Your task to perform on an android device: Open calendar and show me the first week of next month Image 0: 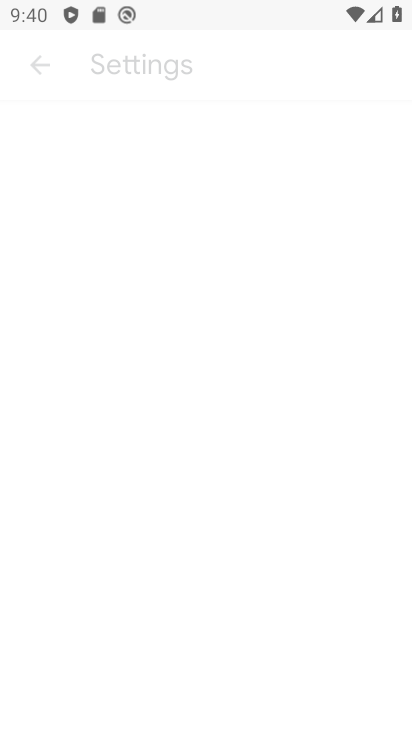
Step 0: drag from (382, 599) to (300, 160)
Your task to perform on an android device: Open calendar and show me the first week of next month Image 1: 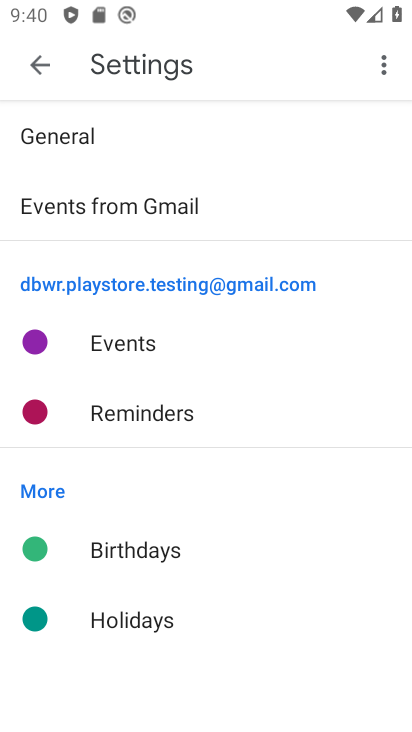
Step 1: press home button
Your task to perform on an android device: Open calendar and show me the first week of next month Image 2: 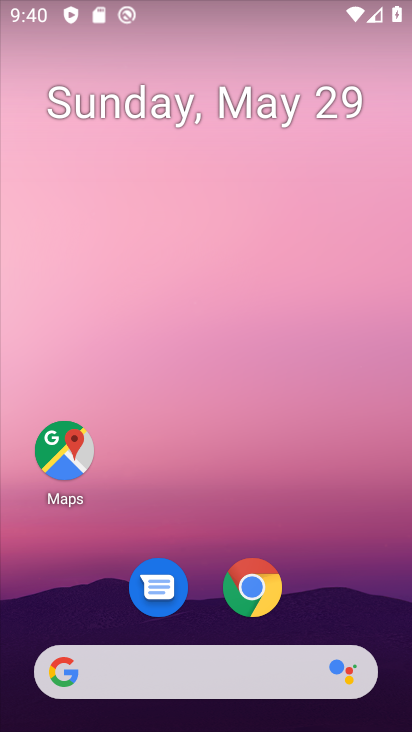
Step 2: drag from (375, 590) to (284, 16)
Your task to perform on an android device: Open calendar and show me the first week of next month Image 3: 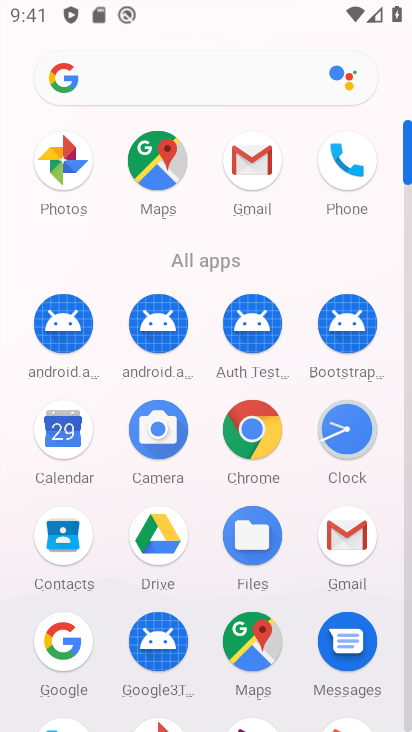
Step 3: click (411, 696)
Your task to perform on an android device: Open calendar and show me the first week of next month Image 4: 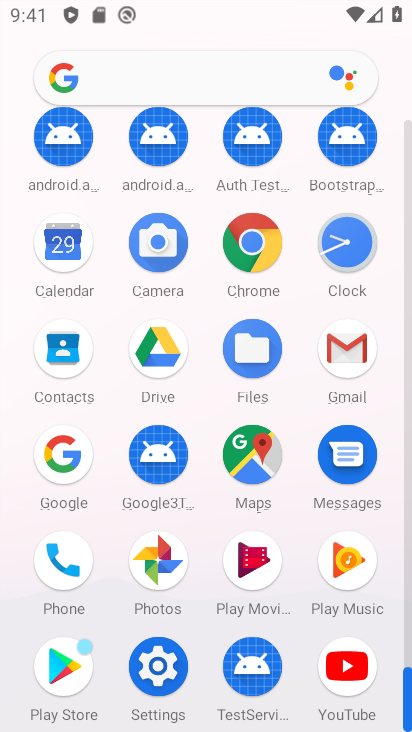
Step 4: click (67, 239)
Your task to perform on an android device: Open calendar and show me the first week of next month Image 5: 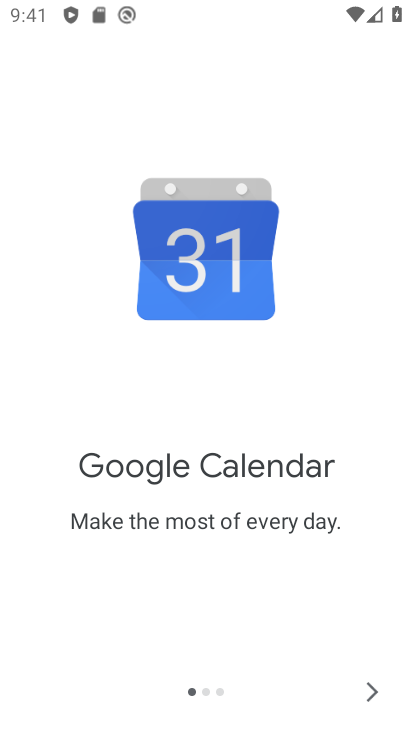
Step 5: click (381, 700)
Your task to perform on an android device: Open calendar and show me the first week of next month Image 6: 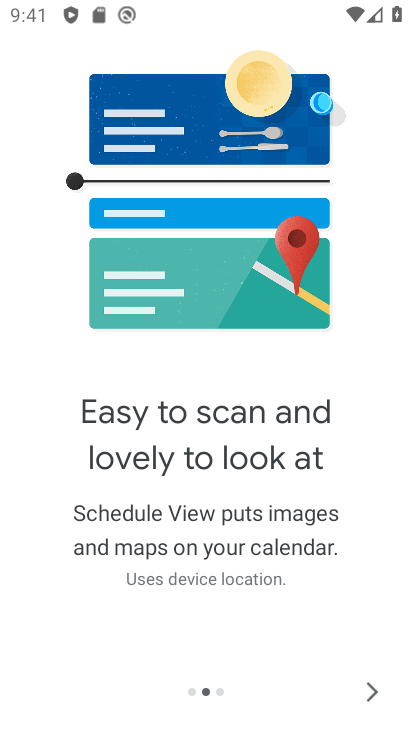
Step 6: click (381, 700)
Your task to perform on an android device: Open calendar and show me the first week of next month Image 7: 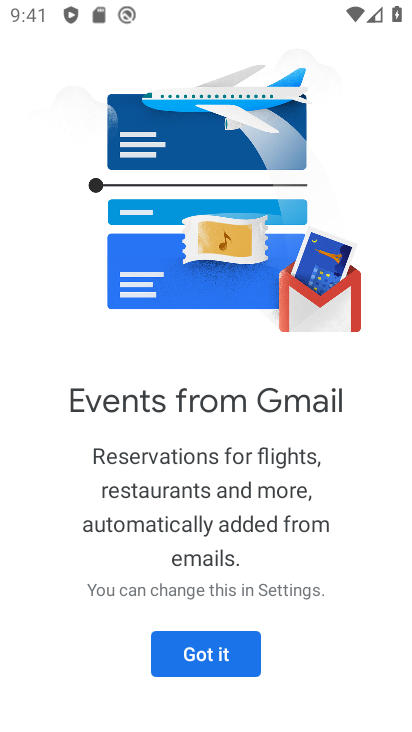
Step 7: click (241, 665)
Your task to perform on an android device: Open calendar and show me the first week of next month Image 8: 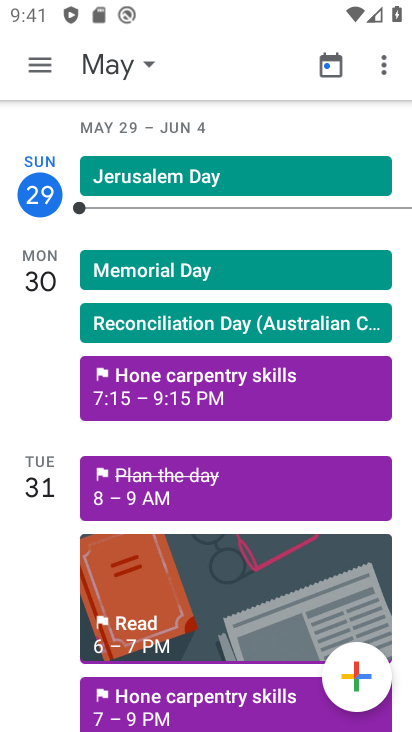
Step 8: click (116, 60)
Your task to perform on an android device: Open calendar and show me the first week of next month Image 9: 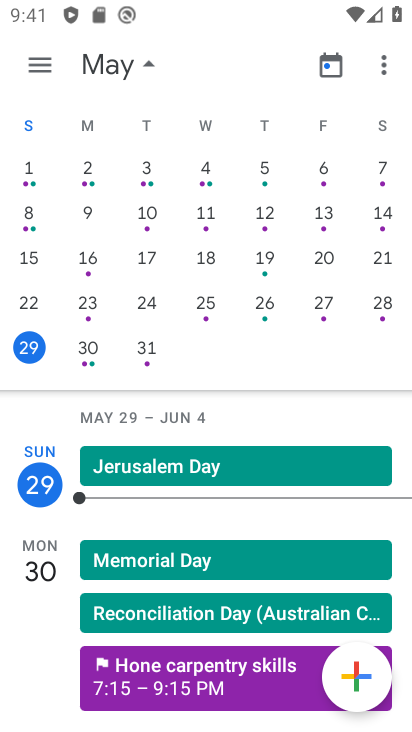
Step 9: drag from (392, 245) to (36, 255)
Your task to perform on an android device: Open calendar and show me the first week of next month Image 10: 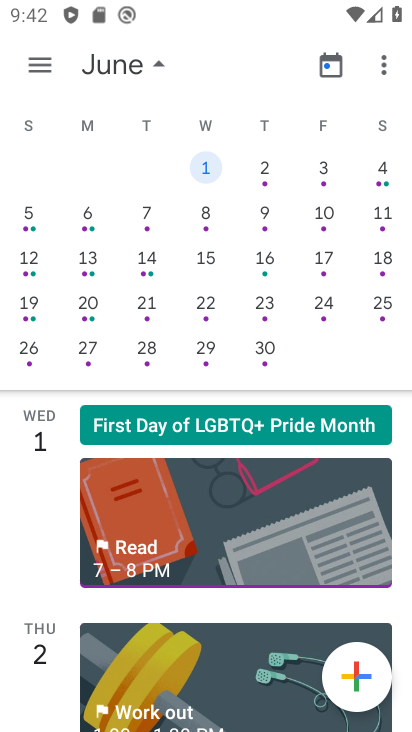
Step 10: click (206, 169)
Your task to perform on an android device: Open calendar and show me the first week of next month Image 11: 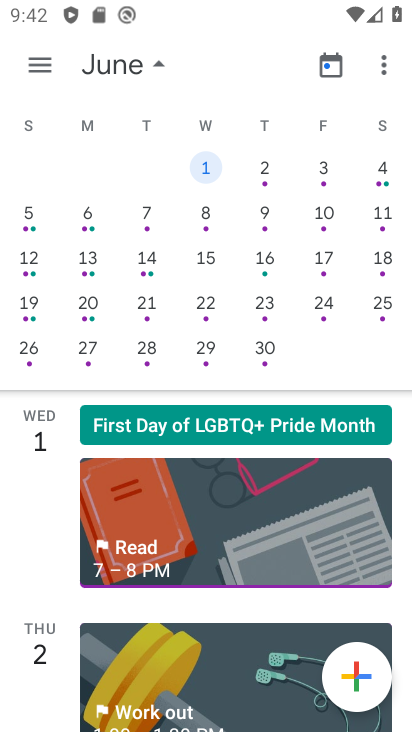
Step 11: click (30, 72)
Your task to perform on an android device: Open calendar and show me the first week of next month Image 12: 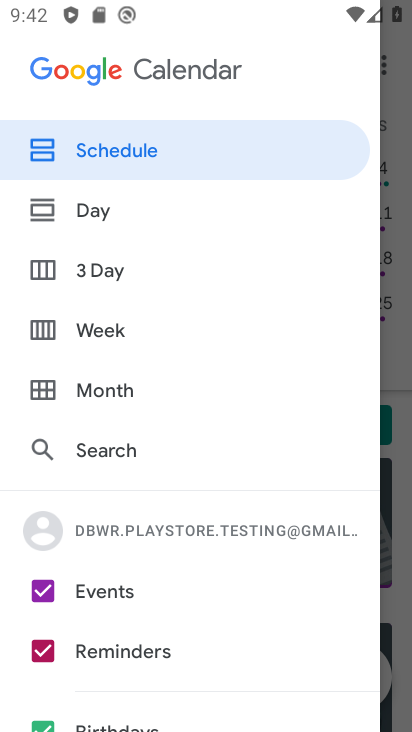
Step 12: click (88, 323)
Your task to perform on an android device: Open calendar and show me the first week of next month Image 13: 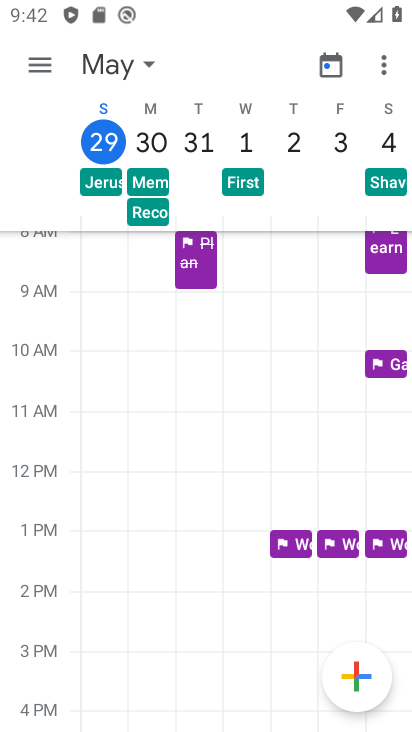
Step 13: click (138, 72)
Your task to perform on an android device: Open calendar and show me the first week of next month Image 14: 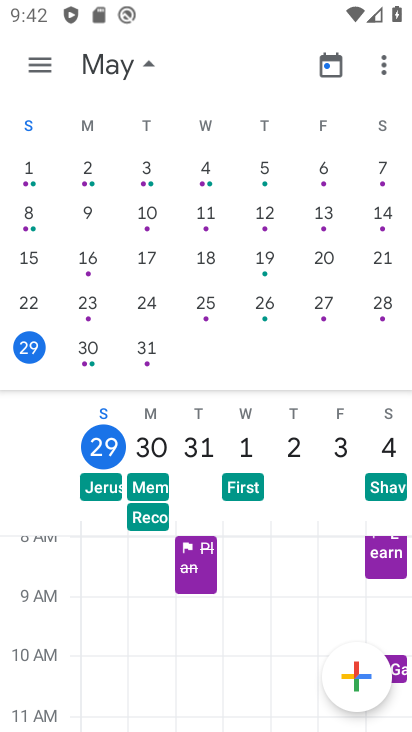
Step 14: drag from (342, 240) to (108, 241)
Your task to perform on an android device: Open calendar and show me the first week of next month Image 15: 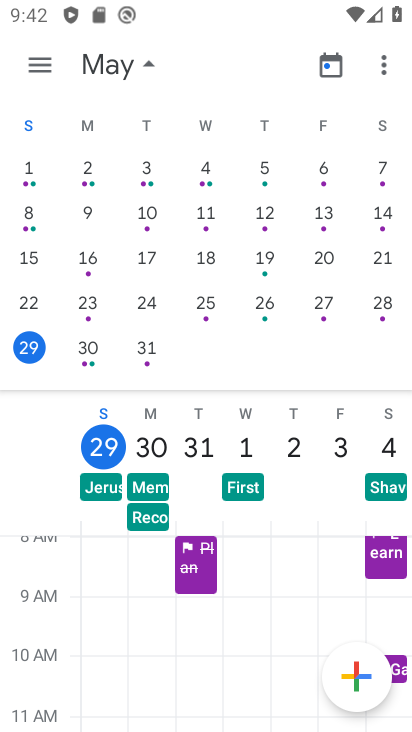
Step 15: drag from (351, 263) to (106, 258)
Your task to perform on an android device: Open calendar and show me the first week of next month Image 16: 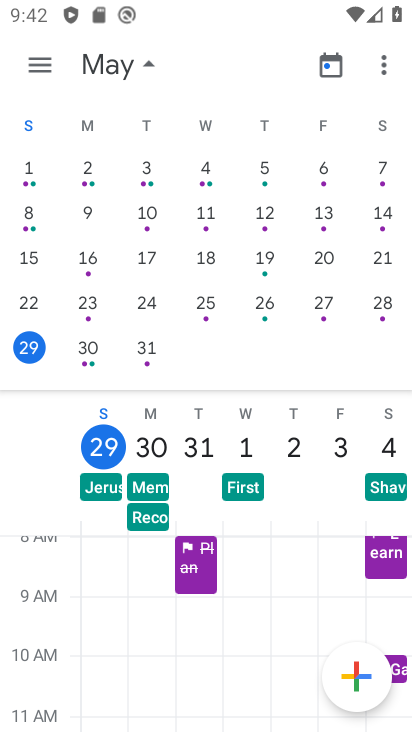
Step 16: drag from (391, 221) to (2, 220)
Your task to perform on an android device: Open calendar and show me the first week of next month Image 17: 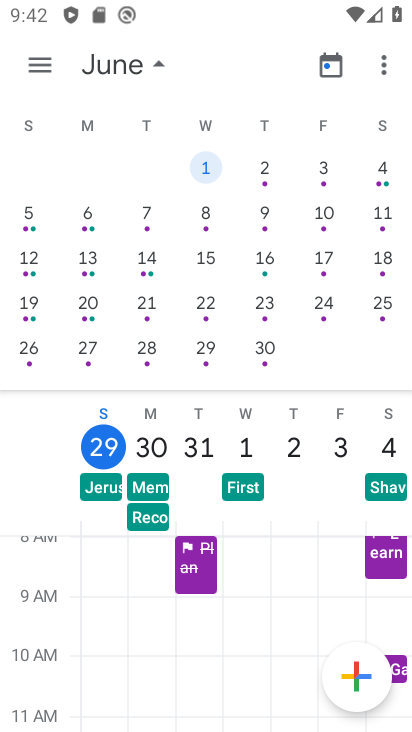
Step 17: click (203, 169)
Your task to perform on an android device: Open calendar and show me the first week of next month Image 18: 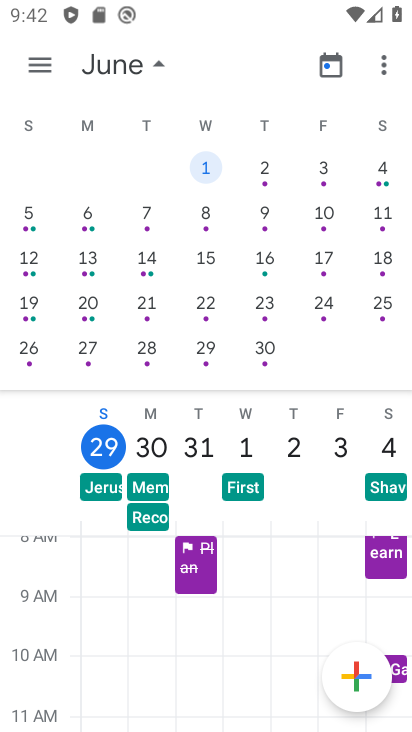
Step 18: task complete